Your task to perform on an android device: open app "Roku - Official Remote Control" Image 0: 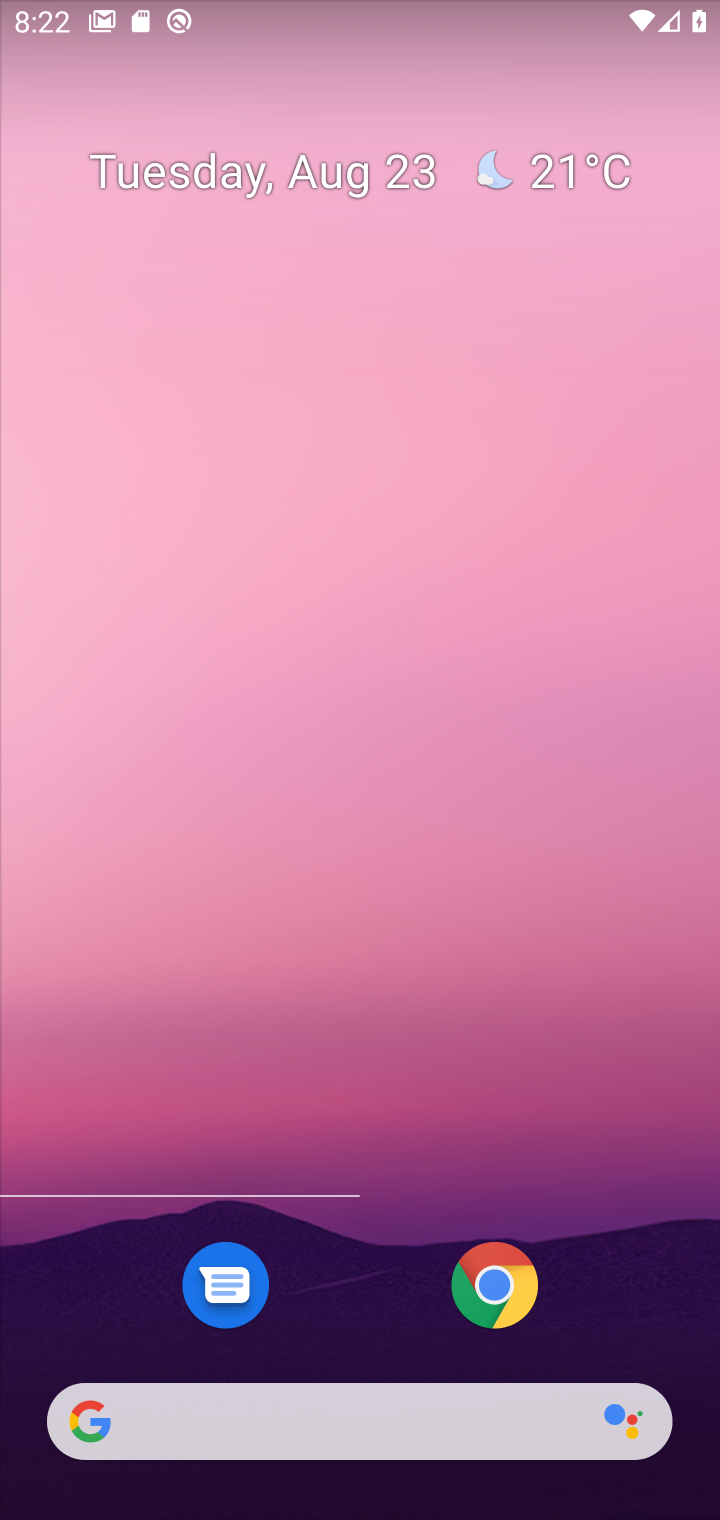
Step 0: press home button
Your task to perform on an android device: open app "Roku - Official Remote Control" Image 1: 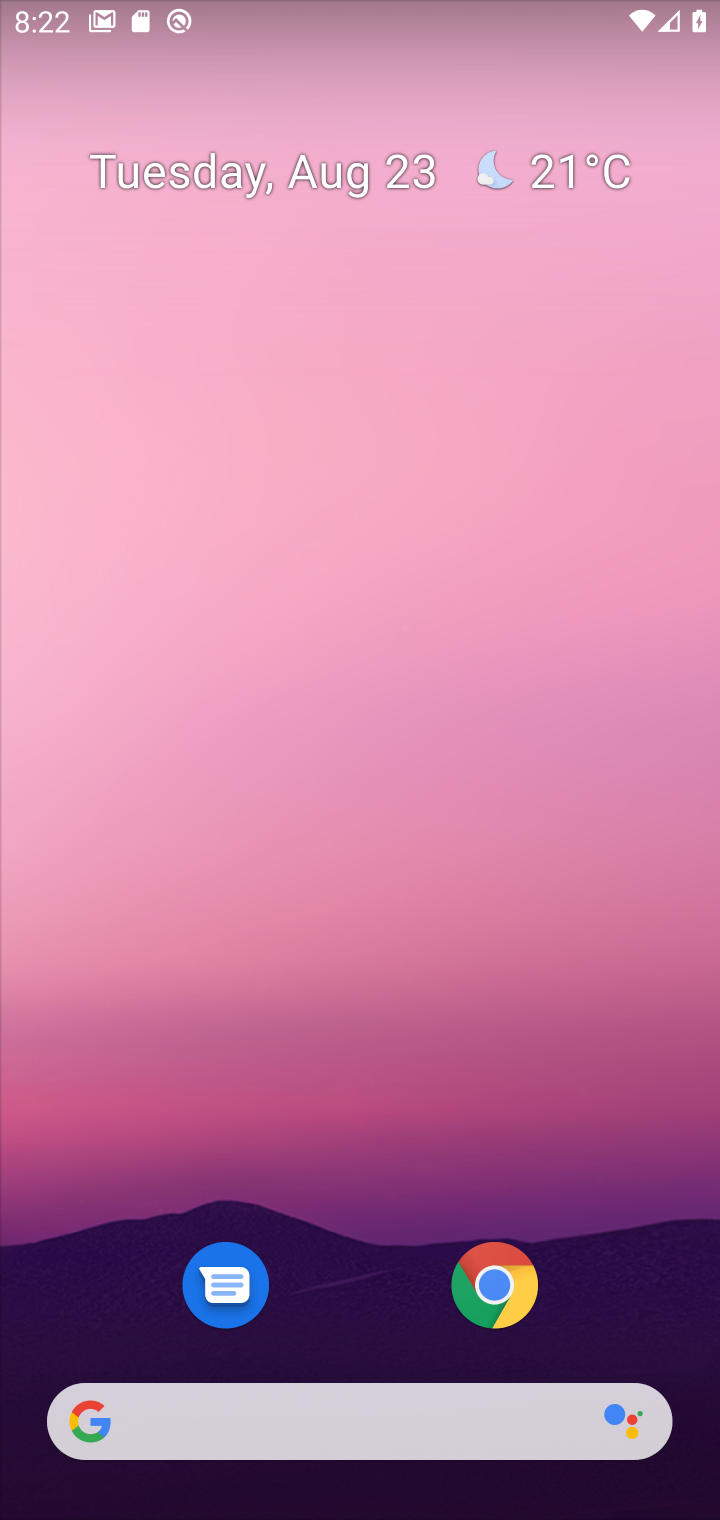
Step 1: press home button
Your task to perform on an android device: open app "Roku - Official Remote Control" Image 2: 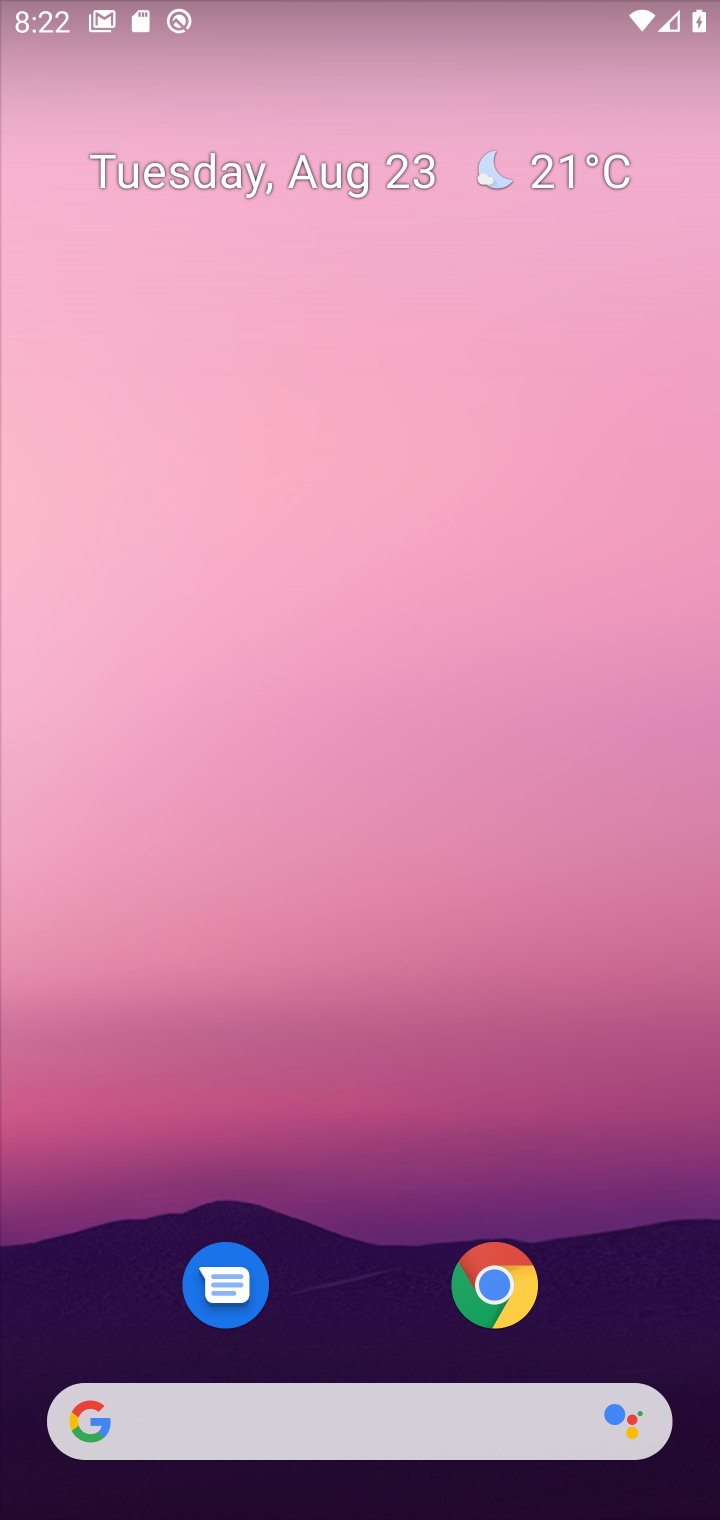
Step 2: drag from (678, 1333) to (564, 376)
Your task to perform on an android device: open app "Roku - Official Remote Control" Image 3: 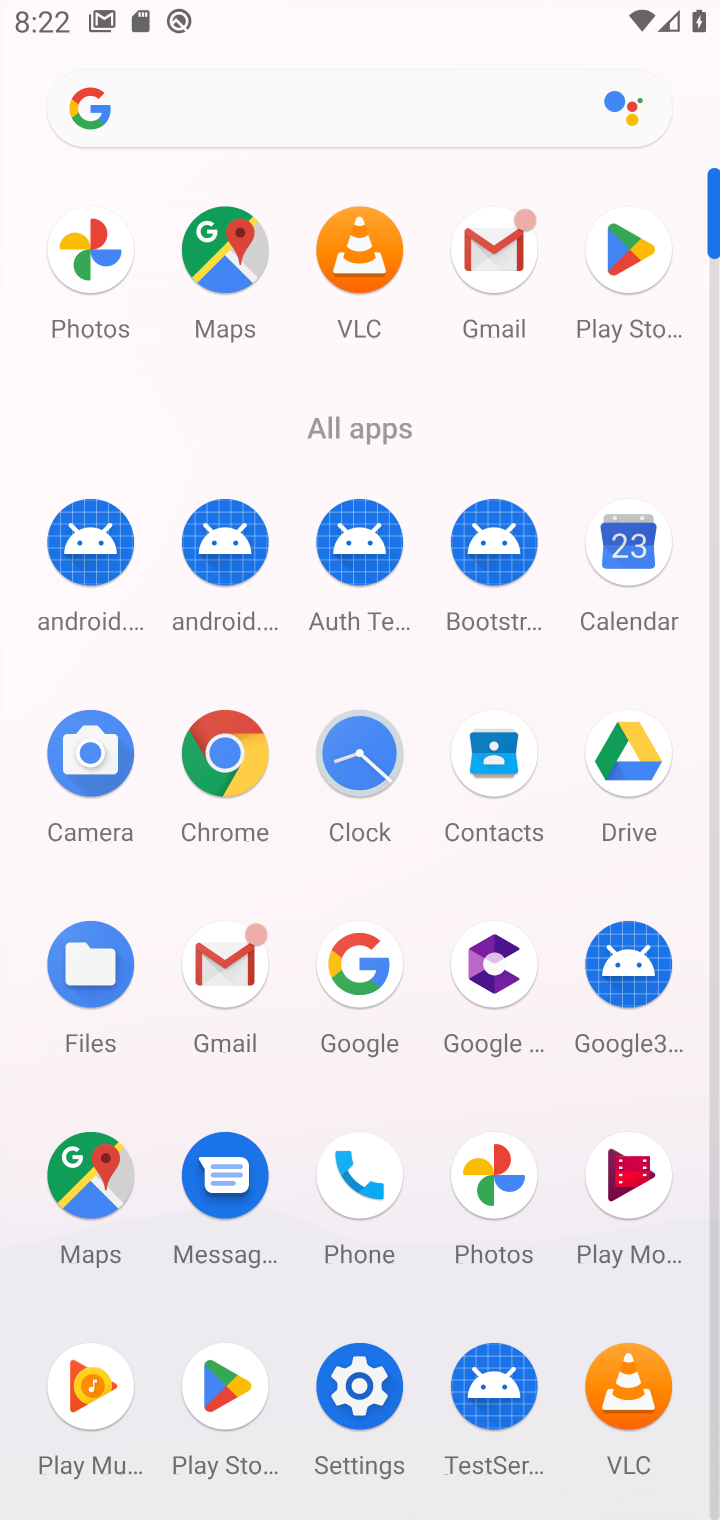
Step 3: click (232, 1388)
Your task to perform on an android device: open app "Roku - Official Remote Control" Image 4: 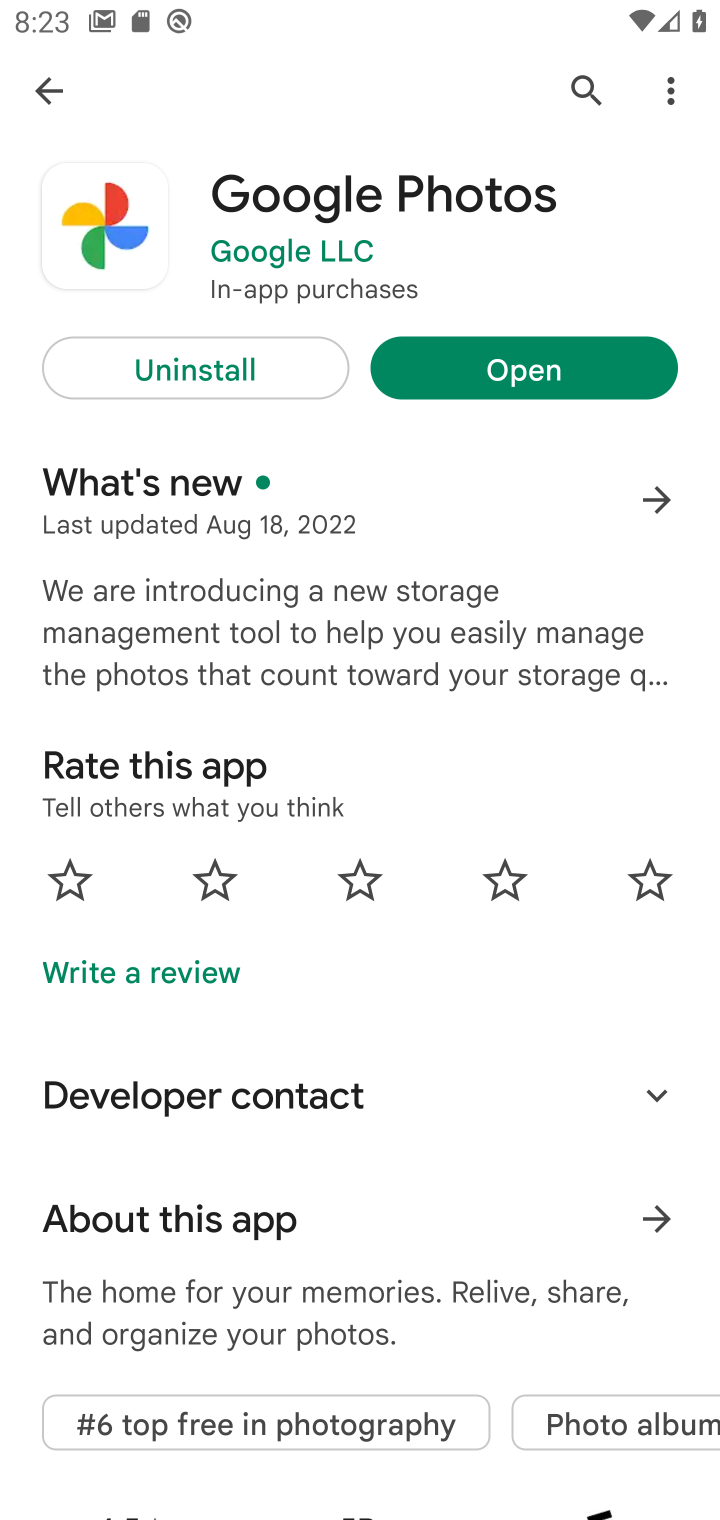
Step 4: click (581, 87)
Your task to perform on an android device: open app "Roku - Official Remote Control" Image 5: 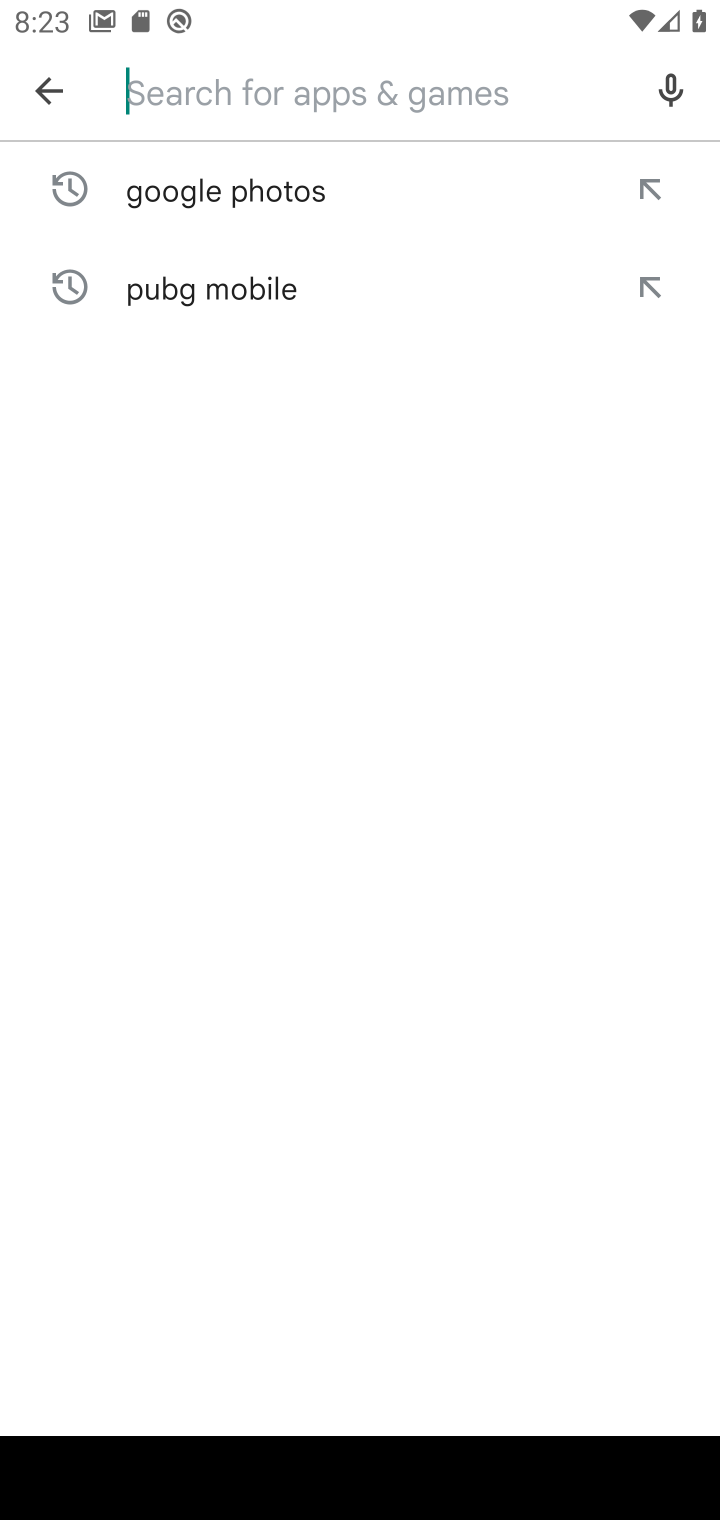
Step 5: type "Roku - Official Remote Control"
Your task to perform on an android device: open app "Roku - Official Remote Control" Image 6: 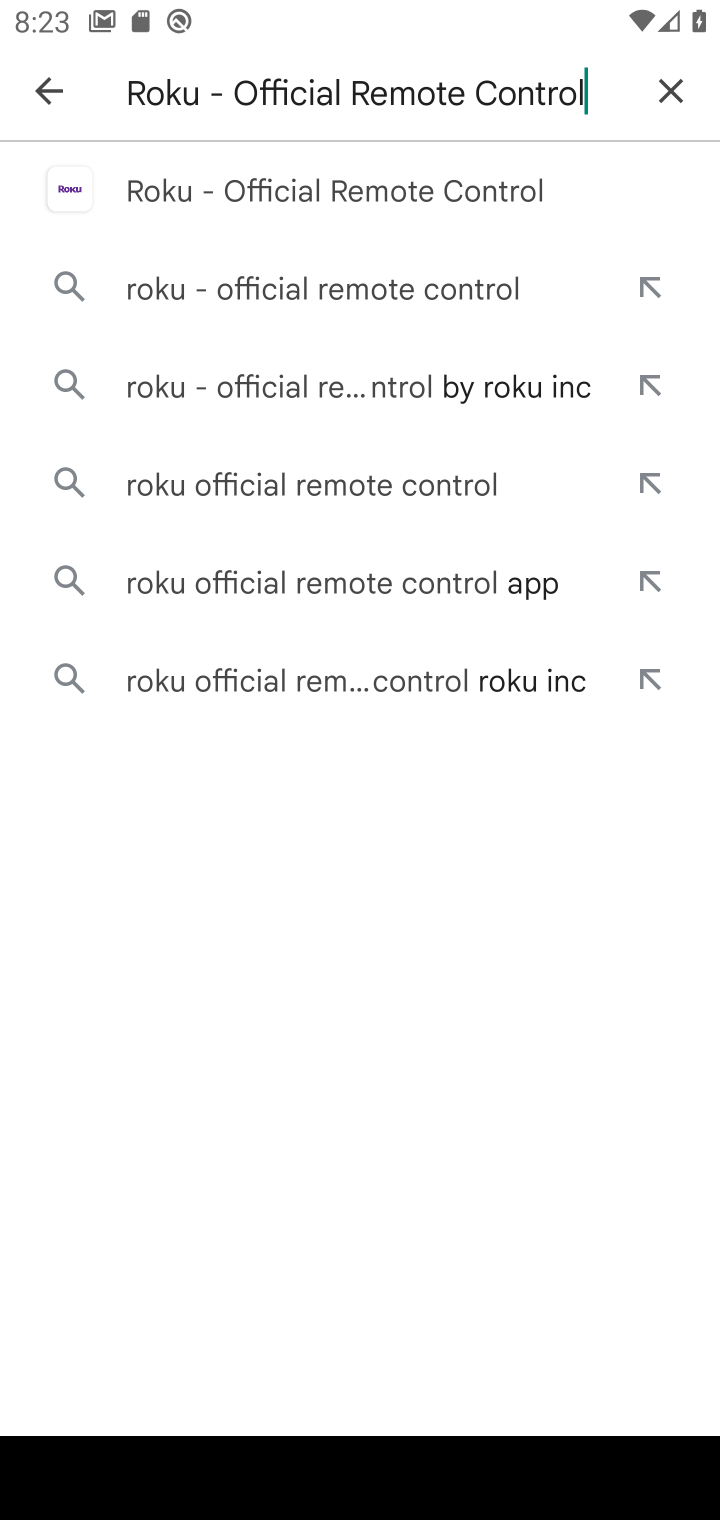
Step 6: click (198, 182)
Your task to perform on an android device: open app "Roku - Official Remote Control" Image 7: 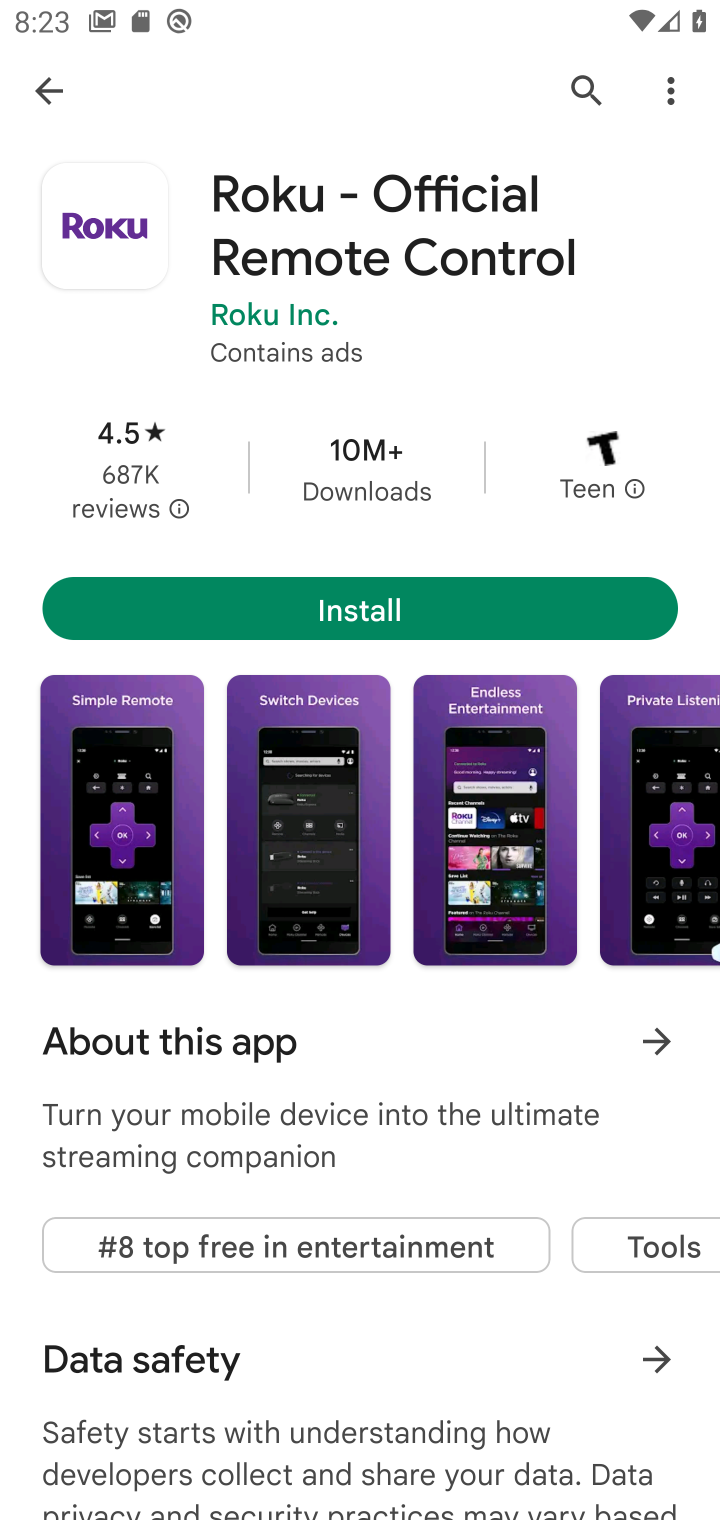
Step 7: task complete